Your task to perform on an android device: change notifications settings Image 0: 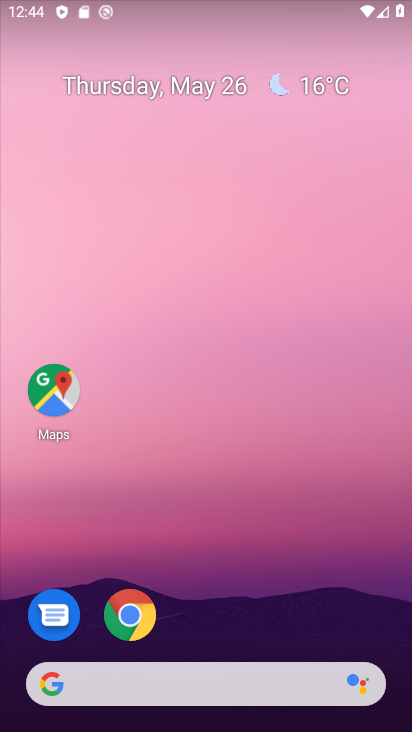
Step 0: drag from (332, 67) to (216, 143)
Your task to perform on an android device: change notifications settings Image 1: 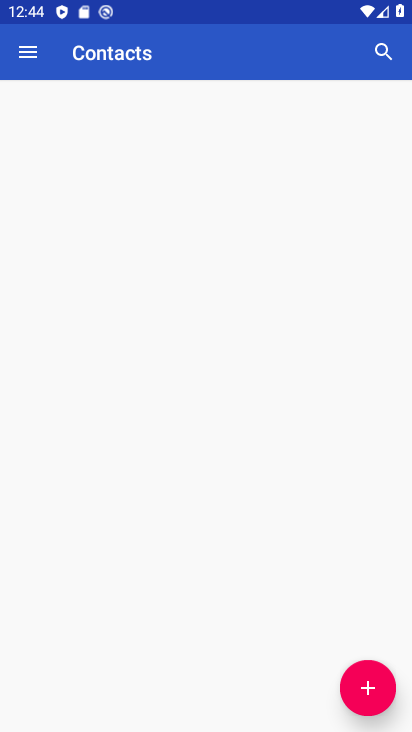
Step 1: press home button
Your task to perform on an android device: change notifications settings Image 2: 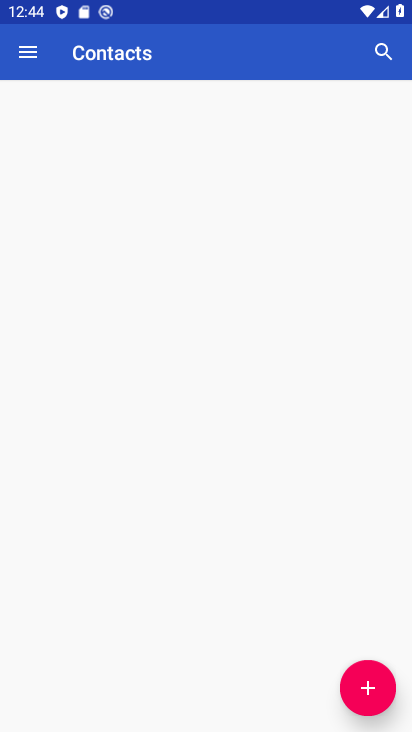
Step 2: press home button
Your task to perform on an android device: change notifications settings Image 3: 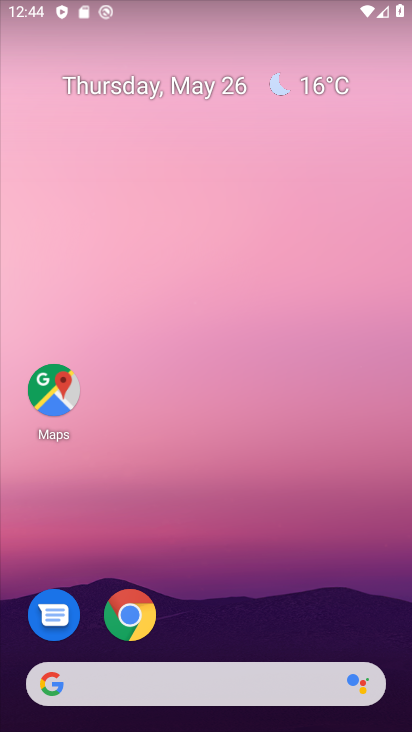
Step 3: drag from (201, 629) to (232, 121)
Your task to perform on an android device: change notifications settings Image 4: 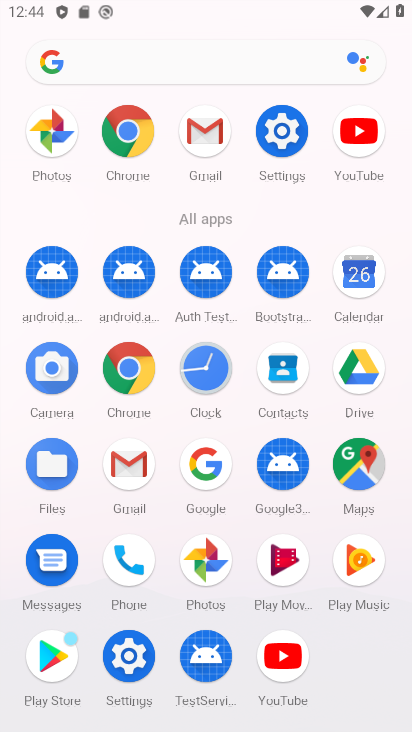
Step 4: click (285, 130)
Your task to perform on an android device: change notifications settings Image 5: 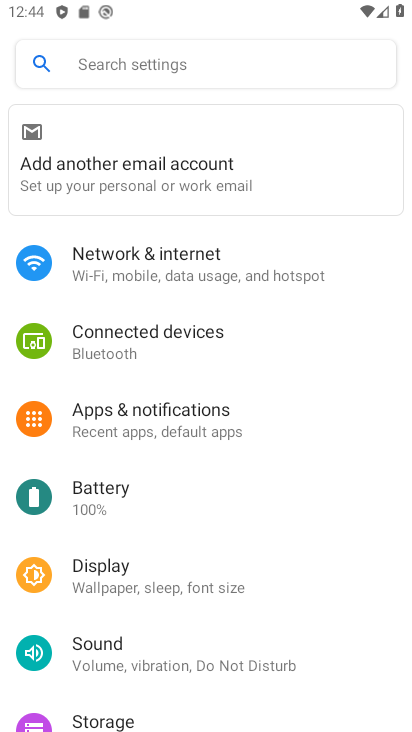
Step 5: click (194, 426)
Your task to perform on an android device: change notifications settings Image 6: 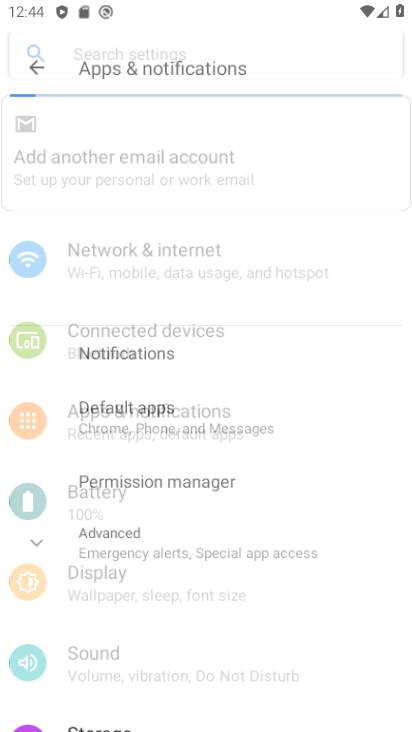
Step 6: drag from (148, 592) to (192, 183)
Your task to perform on an android device: change notifications settings Image 7: 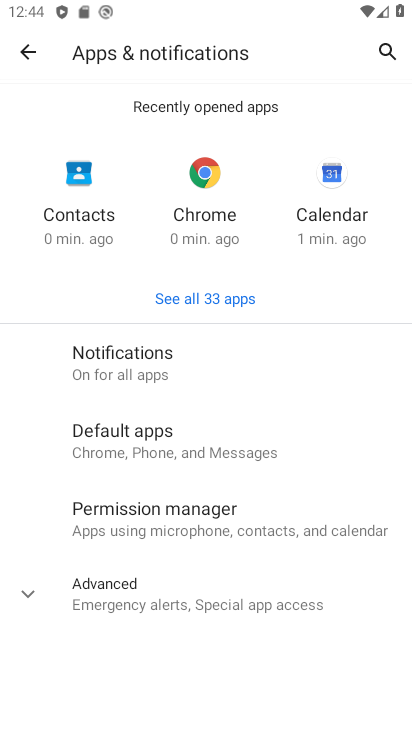
Step 7: click (178, 368)
Your task to perform on an android device: change notifications settings Image 8: 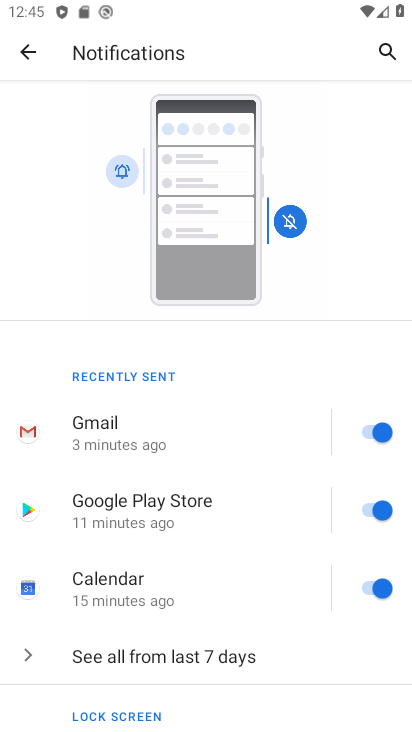
Step 8: click (372, 425)
Your task to perform on an android device: change notifications settings Image 9: 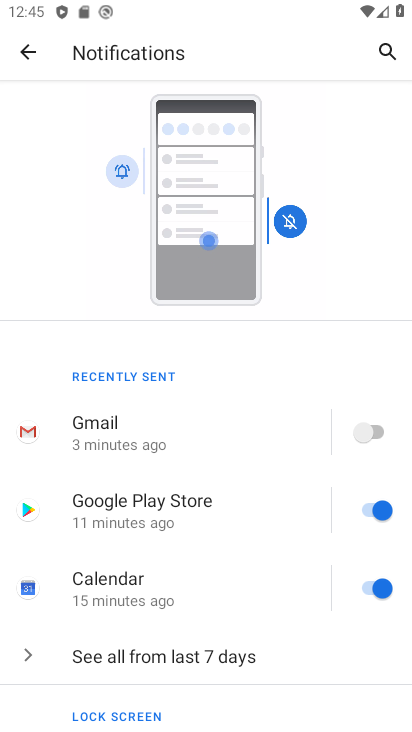
Step 9: task complete